Your task to perform on an android device: Do I have any events tomorrow? Image 0: 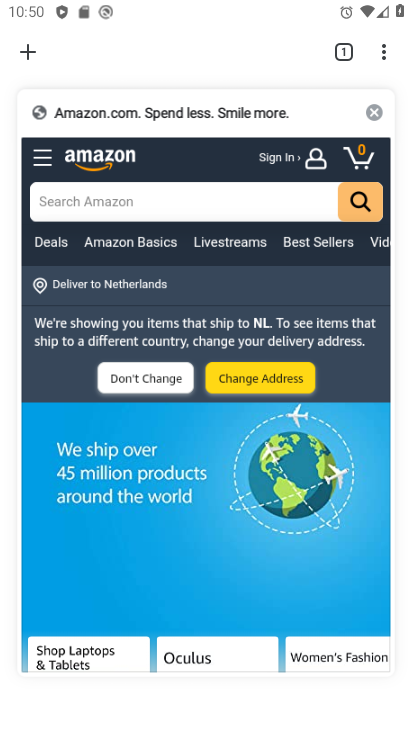
Step 0: press home button
Your task to perform on an android device: Do I have any events tomorrow? Image 1: 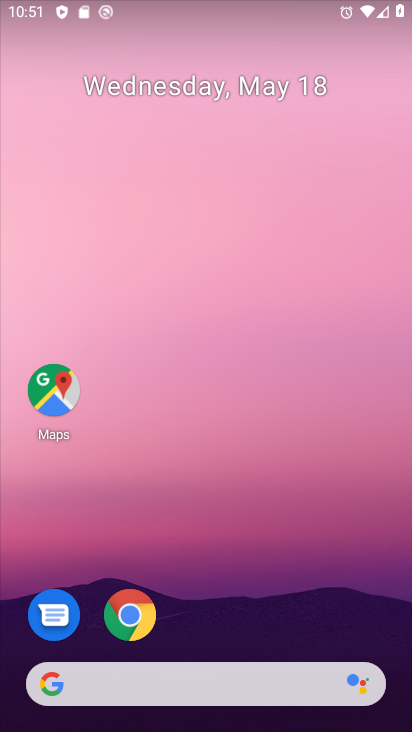
Step 1: drag from (230, 588) to (230, 88)
Your task to perform on an android device: Do I have any events tomorrow? Image 2: 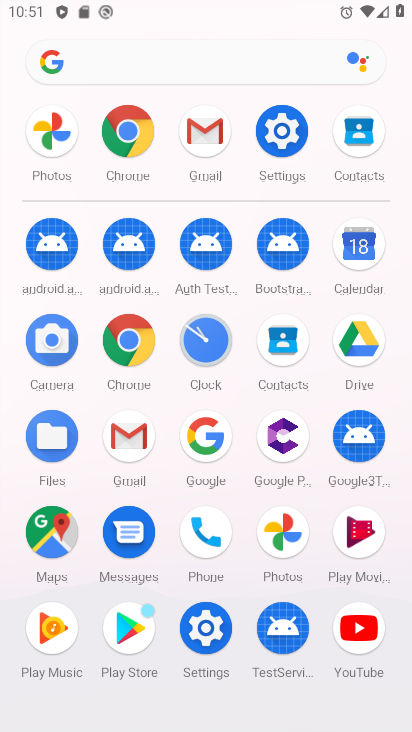
Step 2: click (359, 252)
Your task to perform on an android device: Do I have any events tomorrow? Image 3: 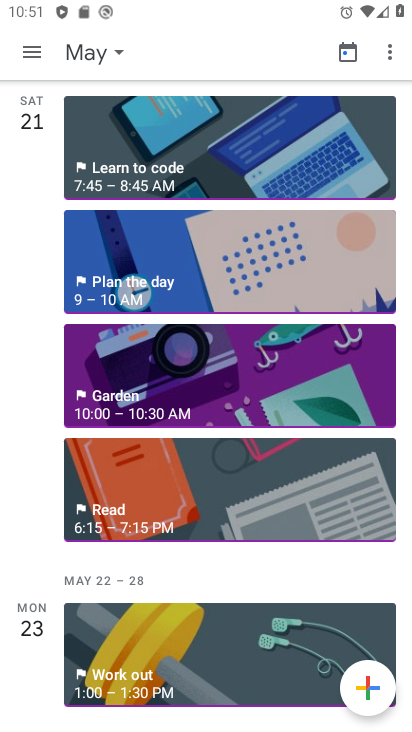
Step 3: drag from (199, 180) to (204, 469)
Your task to perform on an android device: Do I have any events tomorrow? Image 4: 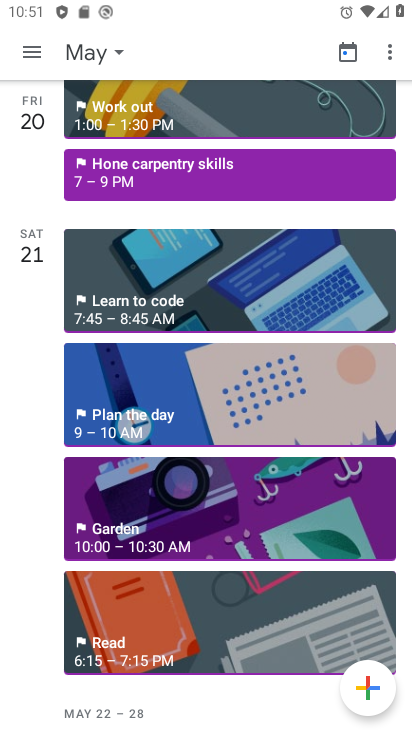
Step 4: drag from (142, 97) to (168, 438)
Your task to perform on an android device: Do I have any events tomorrow? Image 5: 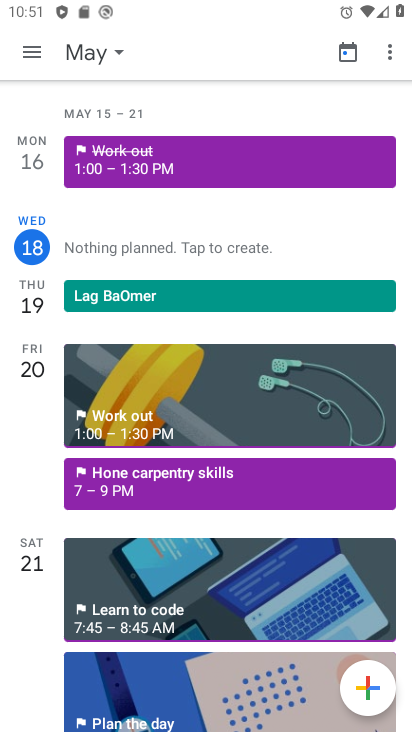
Step 5: click (150, 415)
Your task to perform on an android device: Do I have any events tomorrow? Image 6: 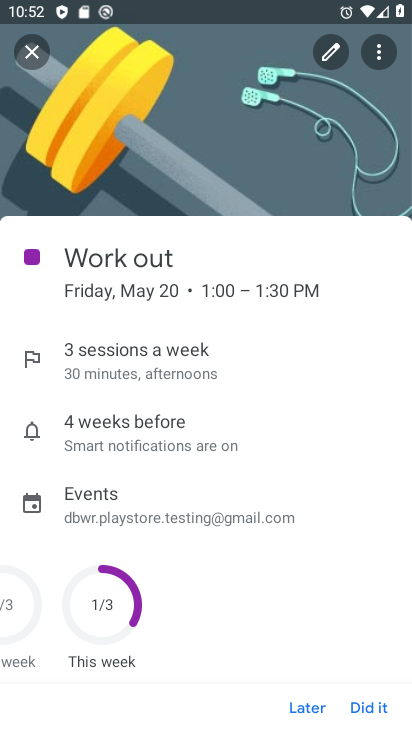
Step 6: task complete